Your task to perform on an android device: turn off wifi Image 0: 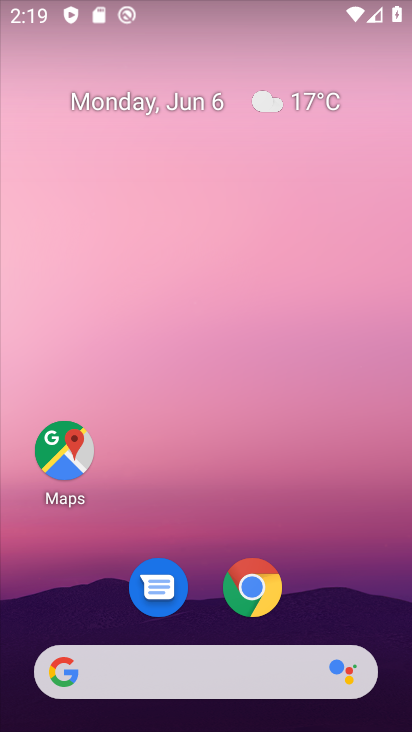
Step 0: drag from (343, 584) to (221, 62)
Your task to perform on an android device: turn off wifi Image 1: 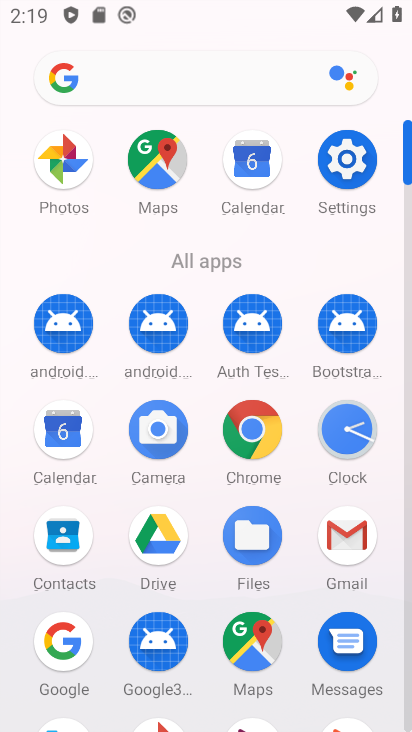
Step 1: drag from (9, 621) to (23, 268)
Your task to perform on an android device: turn off wifi Image 2: 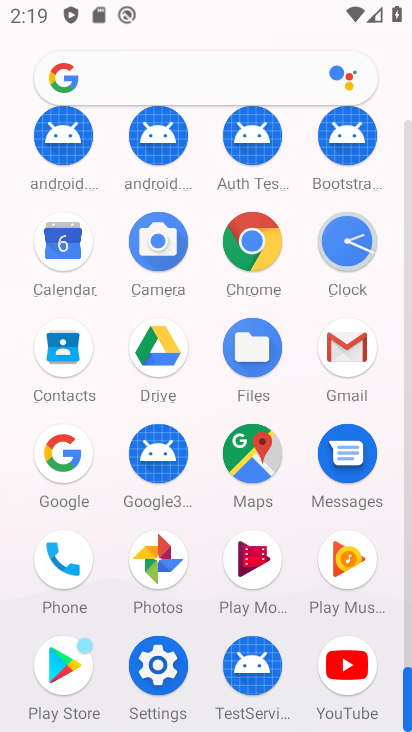
Step 2: click (156, 663)
Your task to perform on an android device: turn off wifi Image 3: 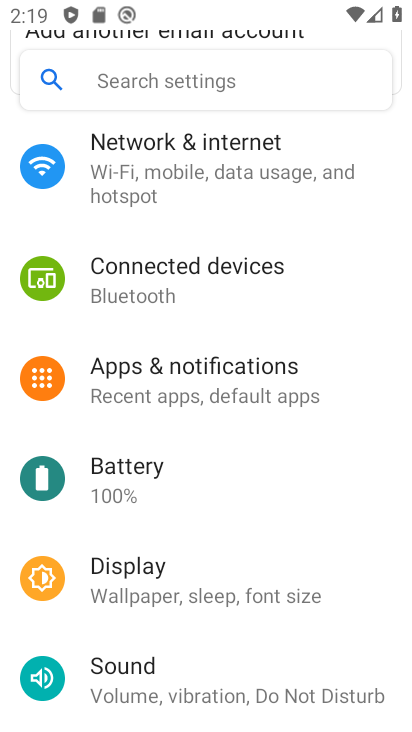
Step 3: drag from (311, 169) to (301, 529)
Your task to perform on an android device: turn off wifi Image 4: 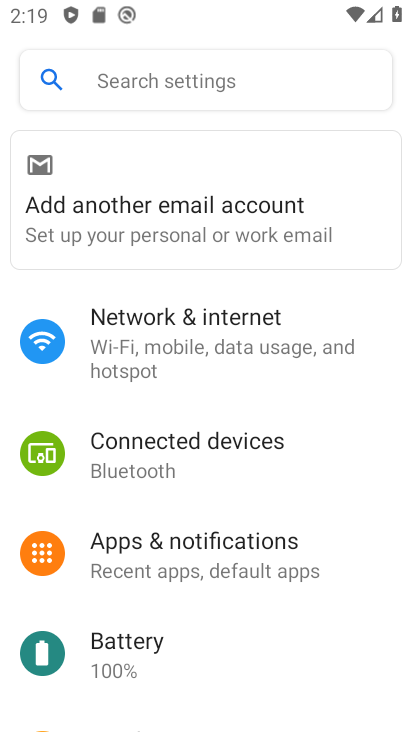
Step 4: click (240, 330)
Your task to perform on an android device: turn off wifi Image 5: 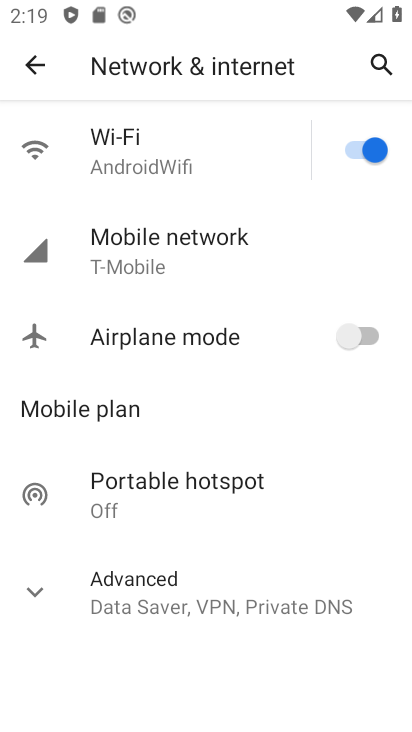
Step 5: click (357, 146)
Your task to perform on an android device: turn off wifi Image 6: 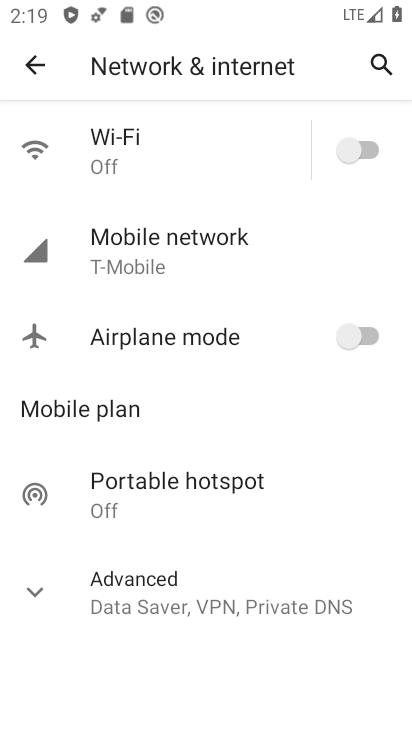
Step 6: click (42, 585)
Your task to perform on an android device: turn off wifi Image 7: 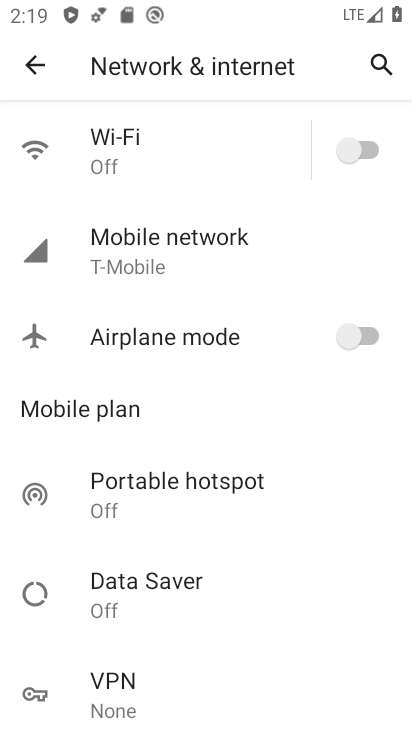
Step 7: task complete